Your task to perform on an android device: stop showing notifications on the lock screen Image 0: 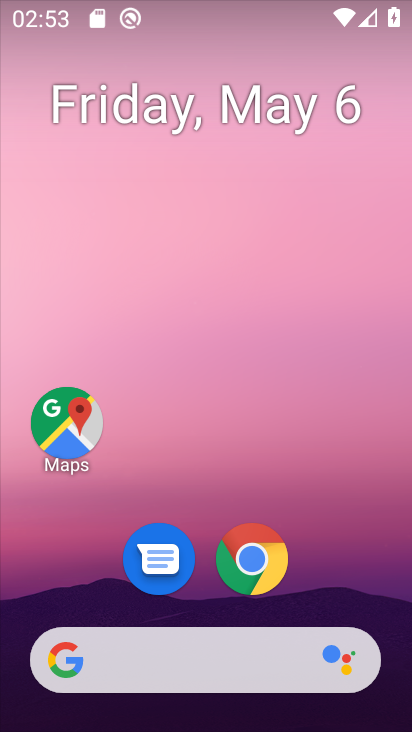
Step 0: drag from (333, 611) to (300, 42)
Your task to perform on an android device: stop showing notifications on the lock screen Image 1: 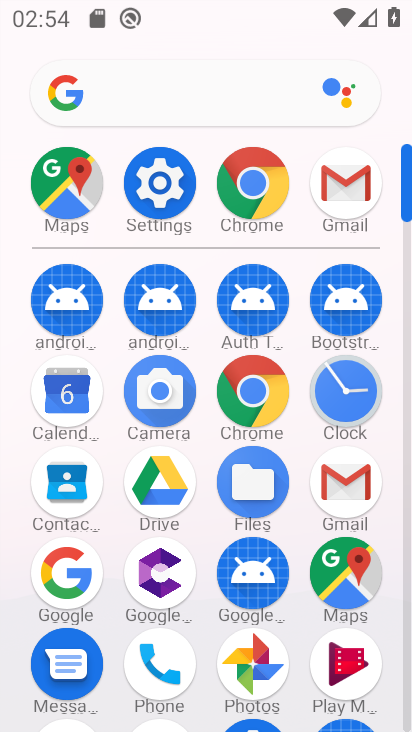
Step 1: click (179, 176)
Your task to perform on an android device: stop showing notifications on the lock screen Image 2: 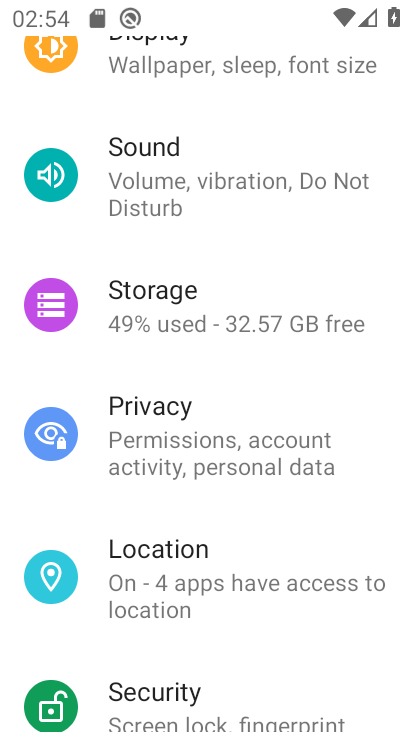
Step 2: drag from (218, 137) to (231, 702)
Your task to perform on an android device: stop showing notifications on the lock screen Image 3: 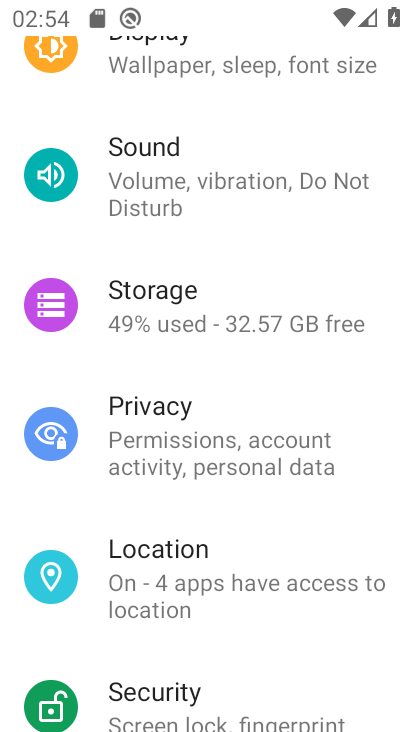
Step 3: drag from (244, 119) to (239, 617)
Your task to perform on an android device: stop showing notifications on the lock screen Image 4: 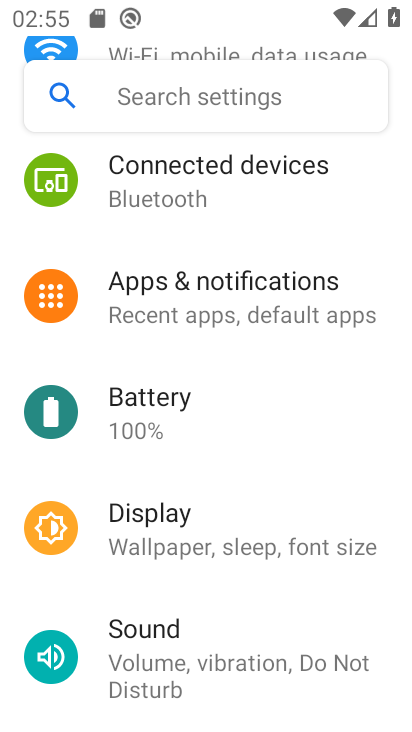
Step 4: drag from (246, 681) to (258, 266)
Your task to perform on an android device: stop showing notifications on the lock screen Image 5: 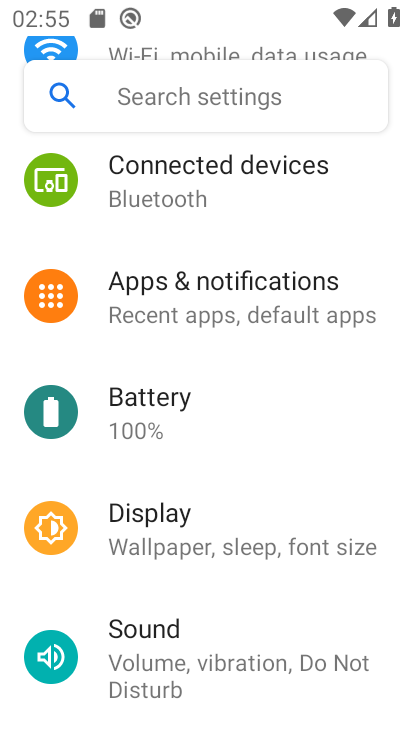
Step 5: drag from (211, 671) to (225, 284)
Your task to perform on an android device: stop showing notifications on the lock screen Image 6: 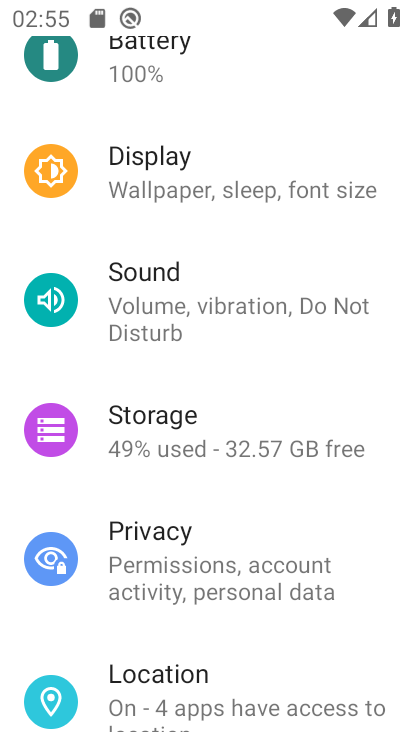
Step 6: drag from (258, 244) to (170, 711)
Your task to perform on an android device: stop showing notifications on the lock screen Image 7: 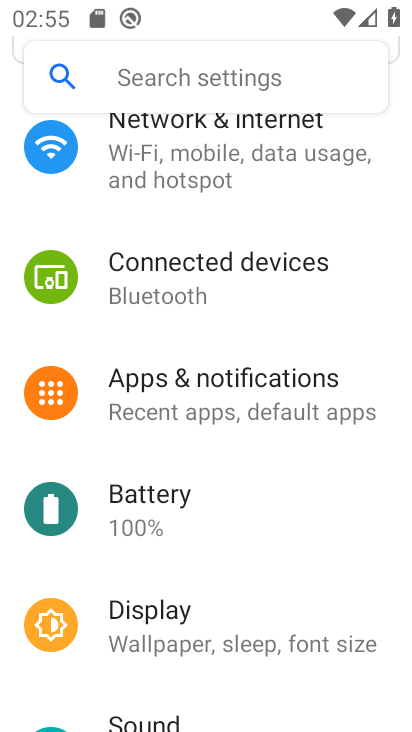
Step 7: click (224, 403)
Your task to perform on an android device: stop showing notifications on the lock screen Image 8: 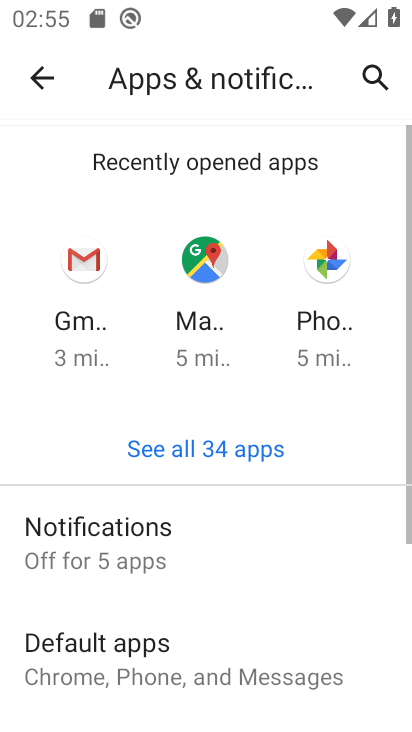
Step 8: click (159, 517)
Your task to perform on an android device: stop showing notifications on the lock screen Image 9: 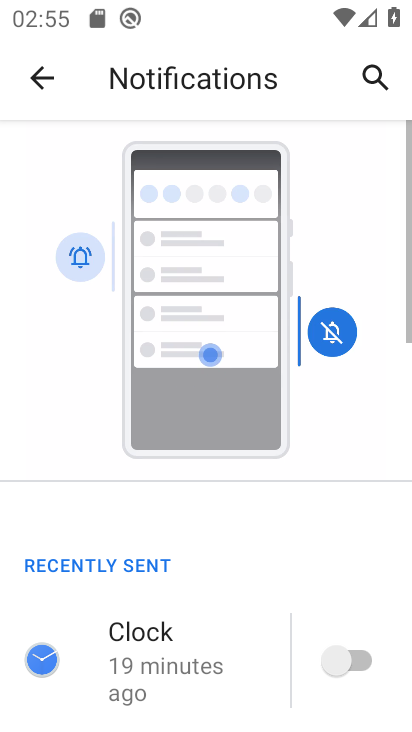
Step 9: drag from (177, 647) to (275, 125)
Your task to perform on an android device: stop showing notifications on the lock screen Image 10: 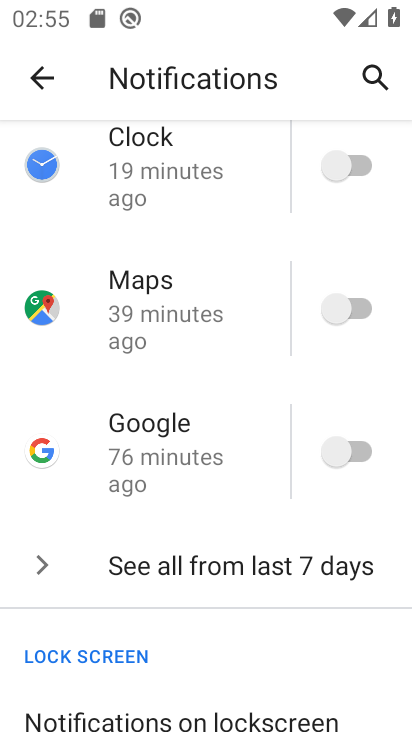
Step 10: drag from (184, 660) to (210, 409)
Your task to perform on an android device: stop showing notifications on the lock screen Image 11: 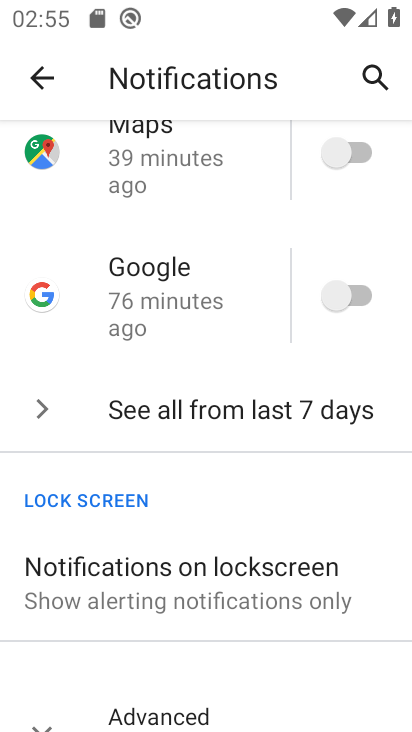
Step 11: click (206, 540)
Your task to perform on an android device: stop showing notifications on the lock screen Image 12: 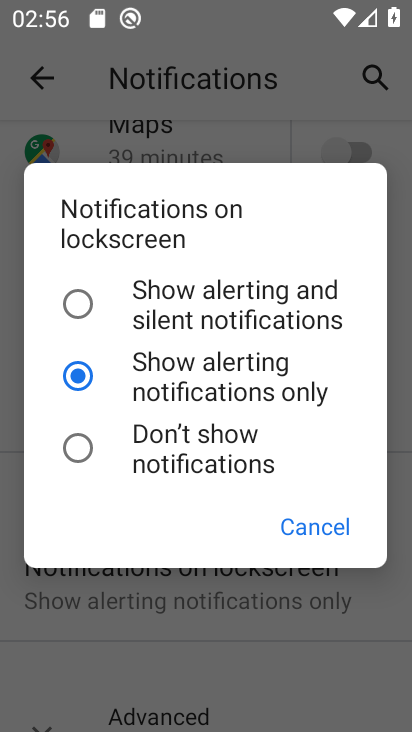
Step 12: click (79, 312)
Your task to perform on an android device: stop showing notifications on the lock screen Image 13: 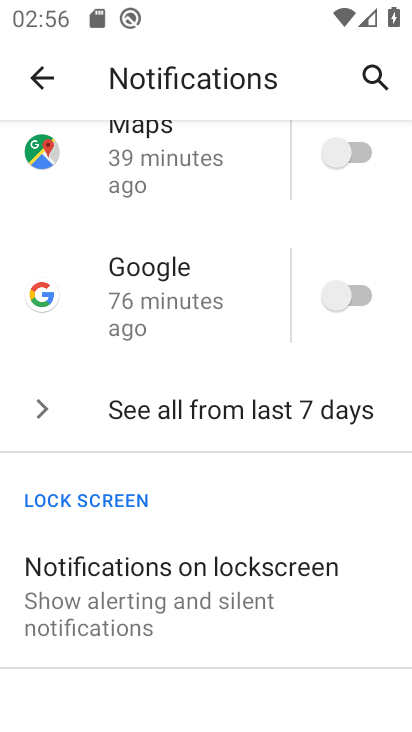
Step 13: click (229, 599)
Your task to perform on an android device: stop showing notifications on the lock screen Image 14: 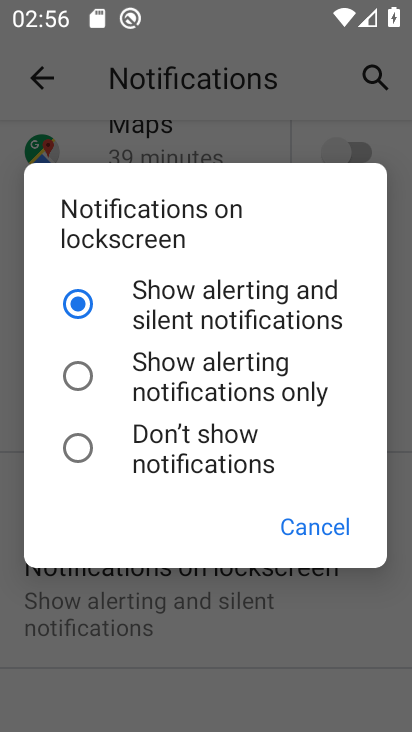
Step 14: click (168, 452)
Your task to perform on an android device: stop showing notifications on the lock screen Image 15: 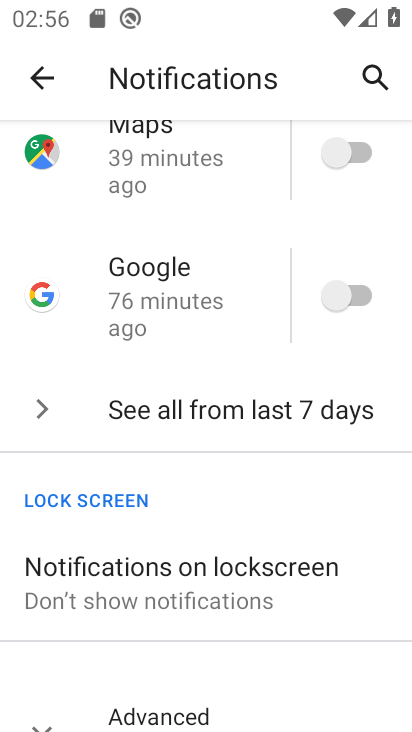
Step 15: task complete